Your task to perform on an android device: What is the news today? Image 0: 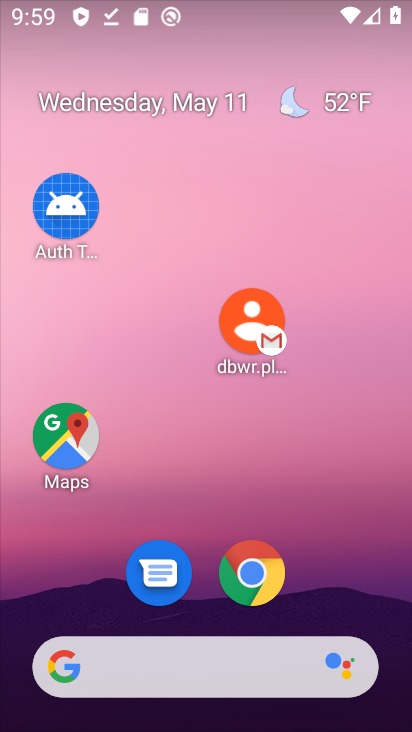
Step 0: drag from (352, 632) to (127, 47)
Your task to perform on an android device: What is the news today? Image 1: 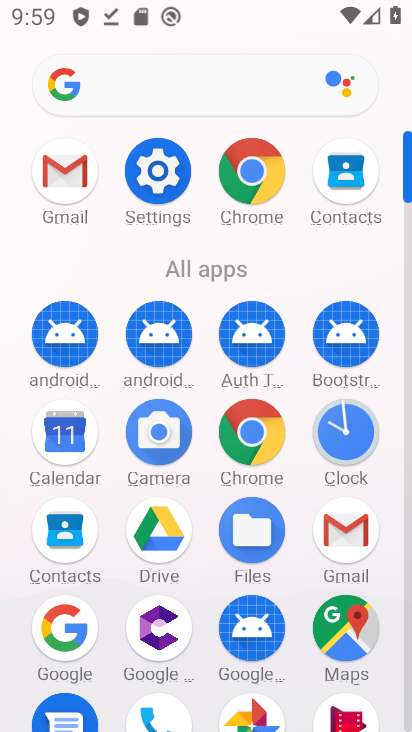
Step 1: task complete